Your task to perform on an android device: Open my contact list Image 0: 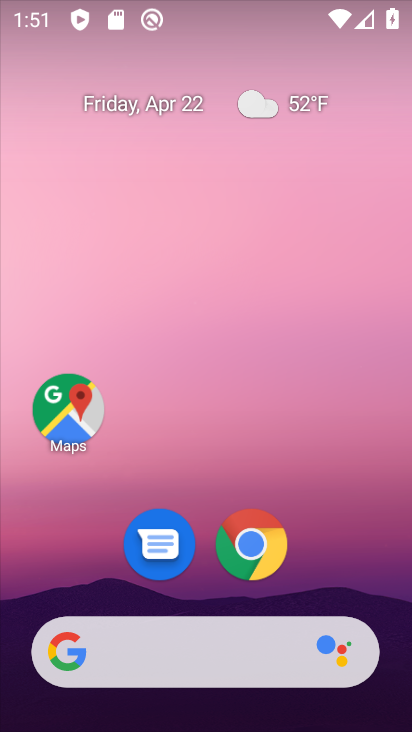
Step 0: drag from (365, 467) to (377, 102)
Your task to perform on an android device: Open my contact list Image 1: 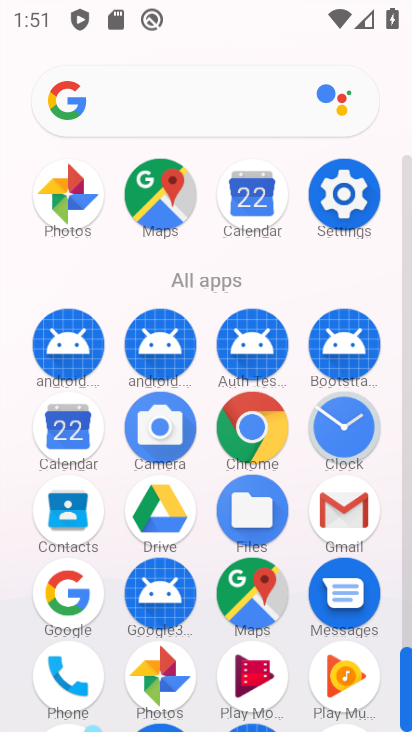
Step 1: click (87, 519)
Your task to perform on an android device: Open my contact list Image 2: 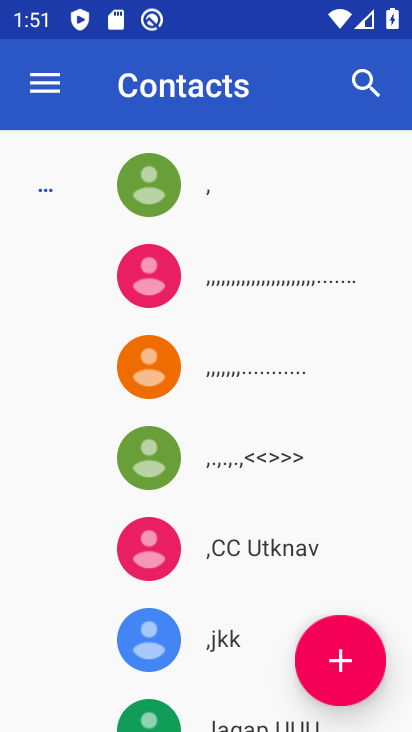
Step 2: press home button
Your task to perform on an android device: Open my contact list Image 3: 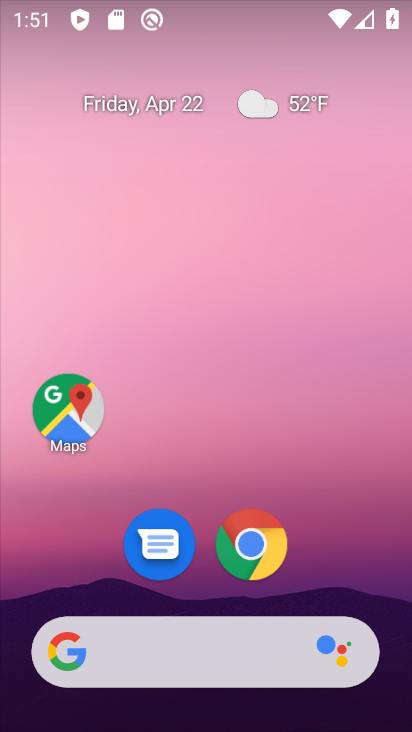
Step 3: drag from (376, 494) to (376, 84)
Your task to perform on an android device: Open my contact list Image 4: 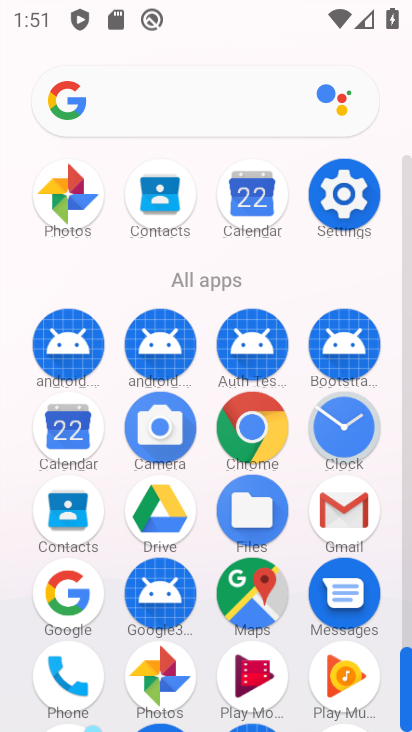
Step 4: click (62, 512)
Your task to perform on an android device: Open my contact list Image 5: 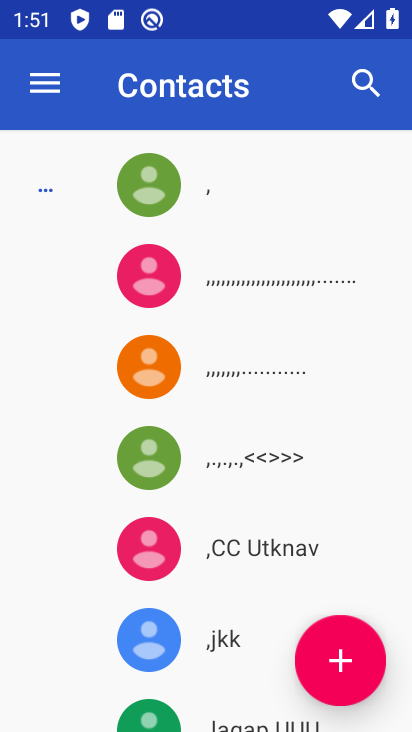
Step 5: task complete